Your task to perform on an android device: turn off improve location accuracy Image 0: 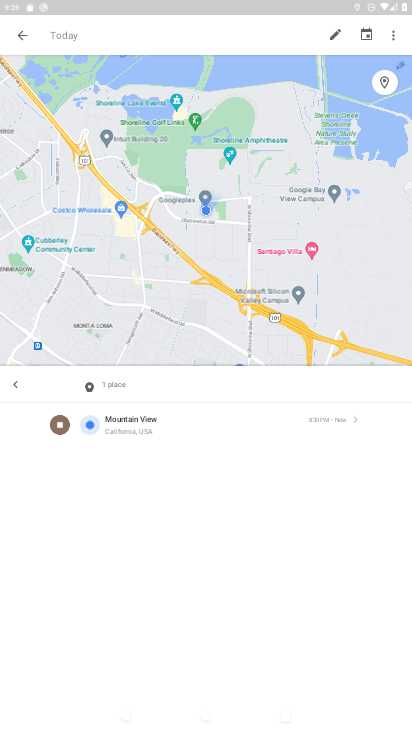
Step 0: press home button
Your task to perform on an android device: turn off improve location accuracy Image 1: 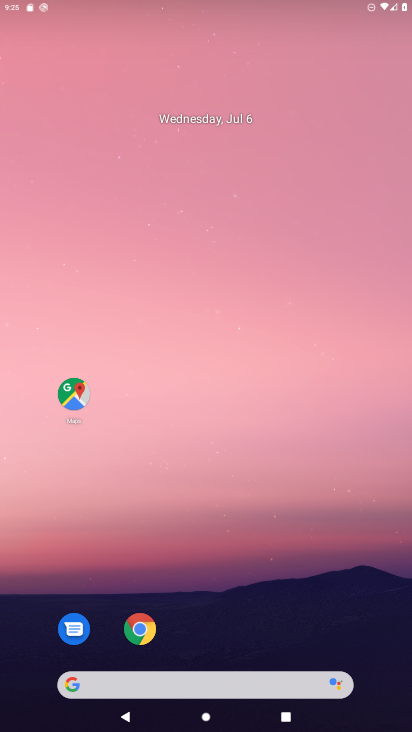
Step 1: drag from (272, 646) to (315, 0)
Your task to perform on an android device: turn off improve location accuracy Image 2: 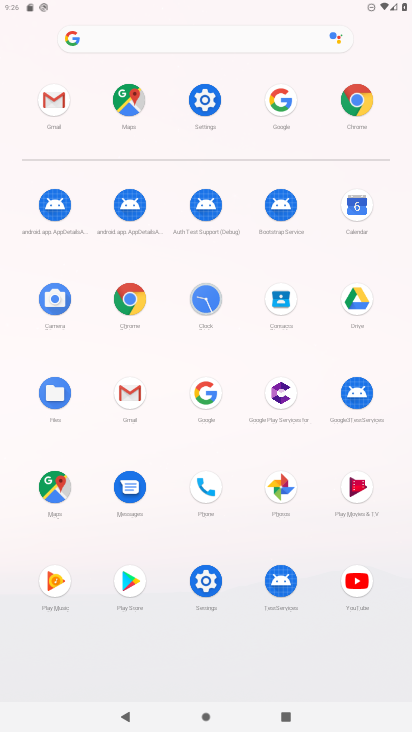
Step 2: click (219, 101)
Your task to perform on an android device: turn off improve location accuracy Image 3: 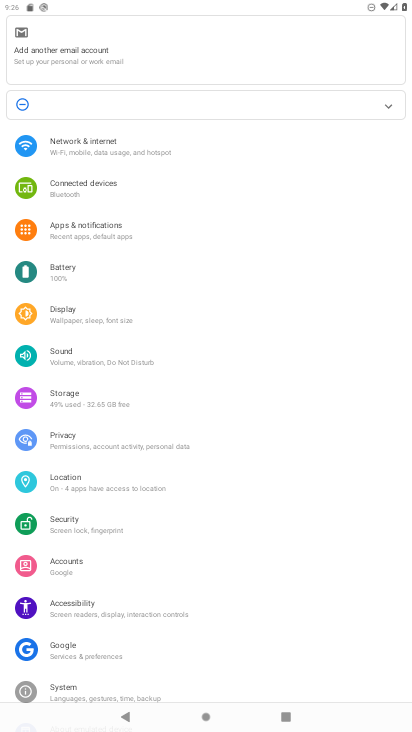
Step 3: click (101, 483)
Your task to perform on an android device: turn off improve location accuracy Image 4: 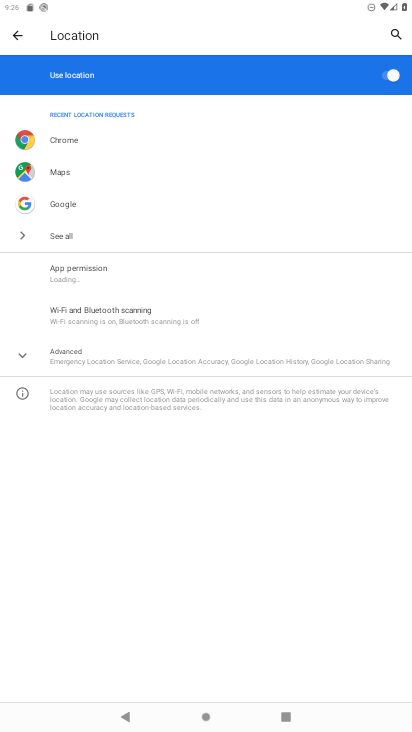
Step 4: click (123, 359)
Your task to perform on an android device: turn off improve location accuracy Image 5: 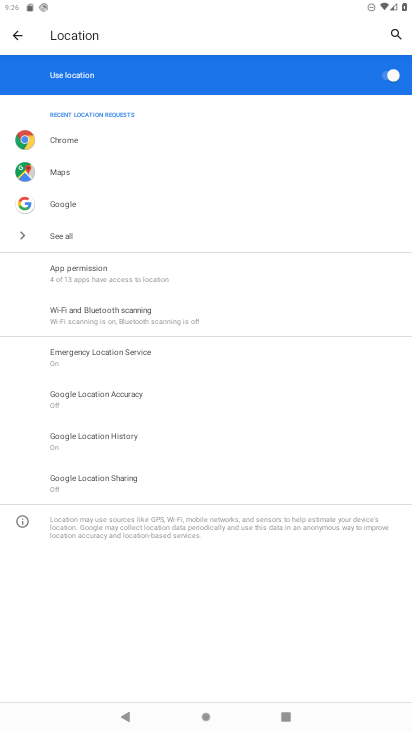
Step 5: click (131, 398)
Your task to perform on an android device: turn off improve location accuracy Image 6: 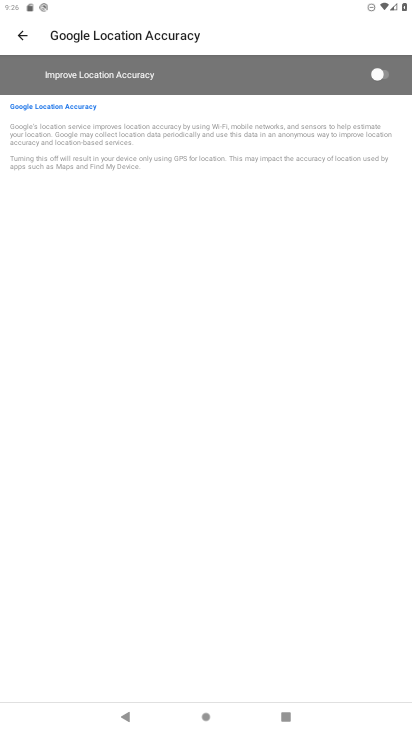
Step 6: task complete